Your task to perform on an android device: see tabs open on other devices in the chrome app Image 0: 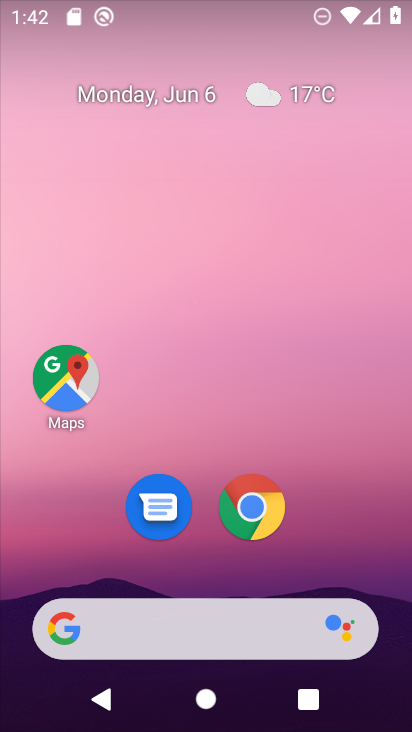
Step 0: drag from (263, 699) to (146, 159)
Your task to perform on an android device: see tabs open on other devices in the chrome app Image 1: 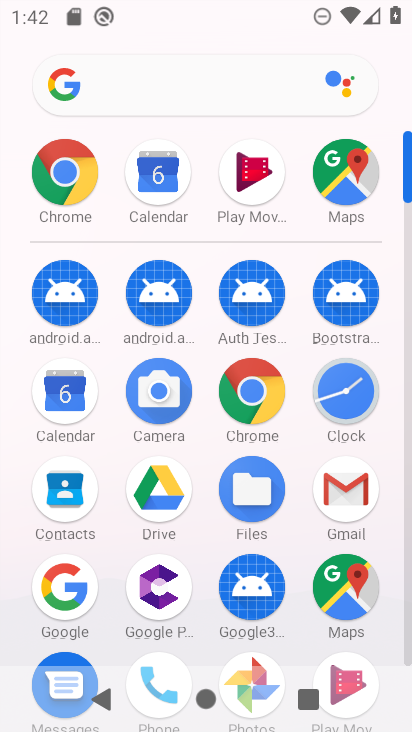
Step 1: click (52, 138)
Your task to perform on an android device: see tabs open on other devices in the chrome app Image 2: 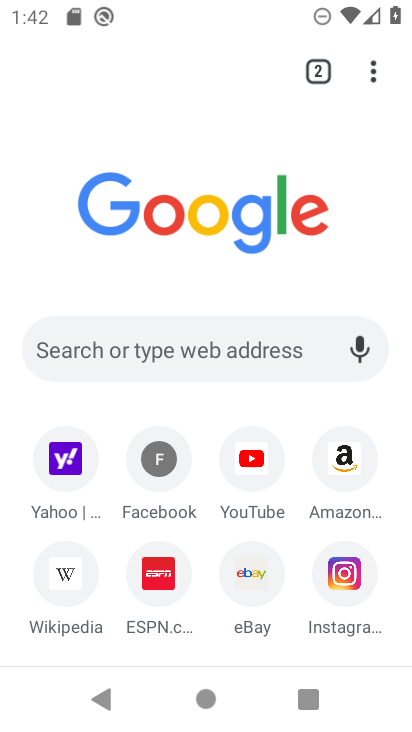
Step 2: click (328, 67)
Your task to perform on an android device: see tabs open on other devices in the chrome app Image 3: 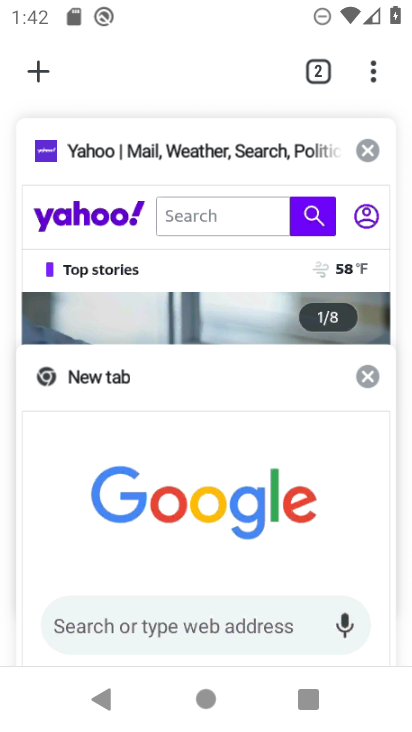
Step 3: click (28, 82)
Your task to perform on an android device: see tabs open on other devices in the chrome app Image 4: 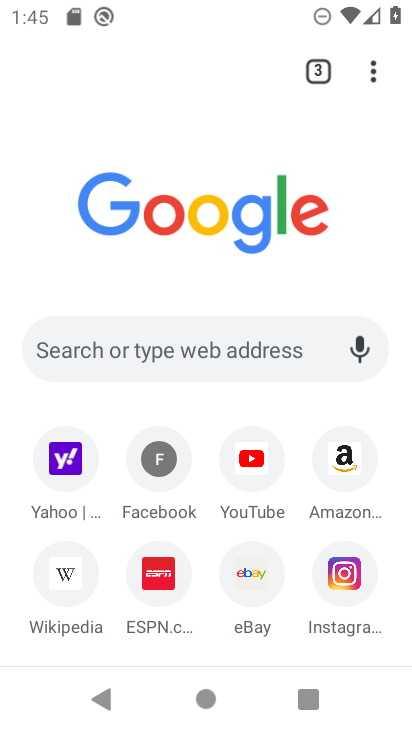
Step 4: task complete